Your task to perform on an android device: Go to location settings Image 0: 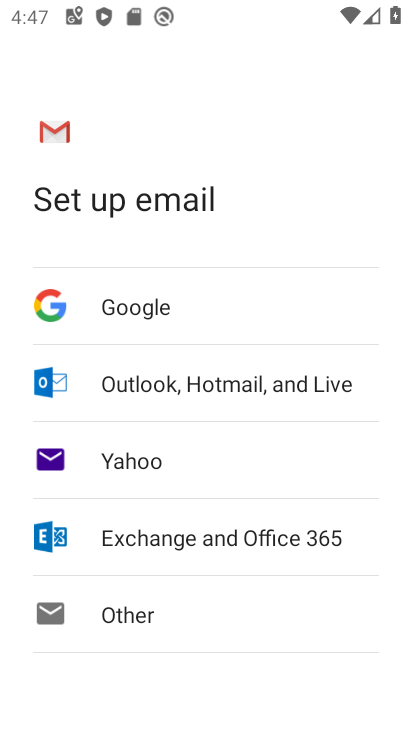
Step 0: press home button
Your task to perform on an android device: Go to location settings Image 1: 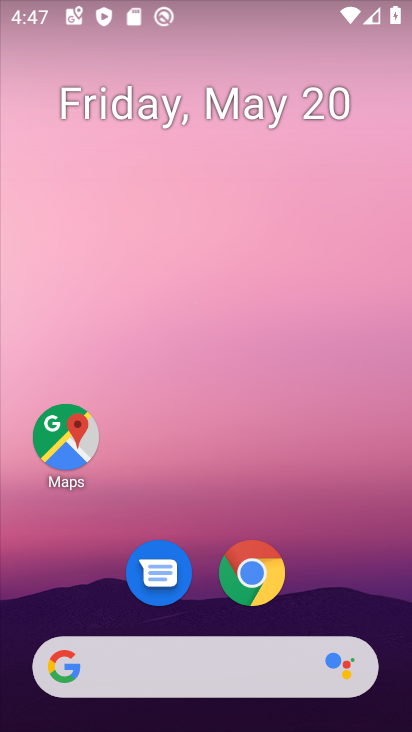
Step 1: drag from (397, 629) to (287, 53)
Your task to perform on an android device: Go to location settings Image 2: 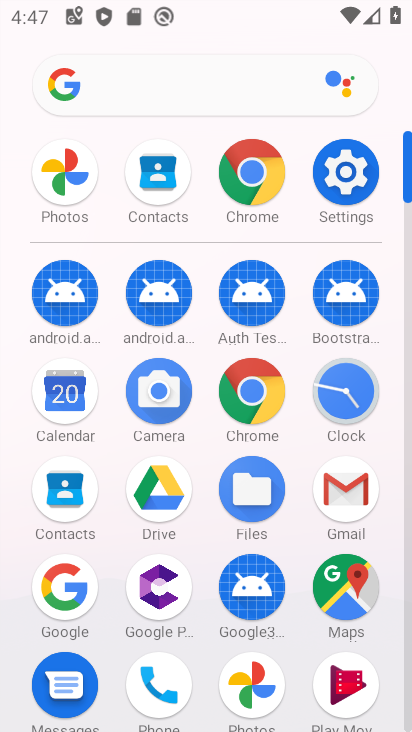
Step 2: click (409, 714)
Your task to perform on an android device: Go to location settings Image 3: 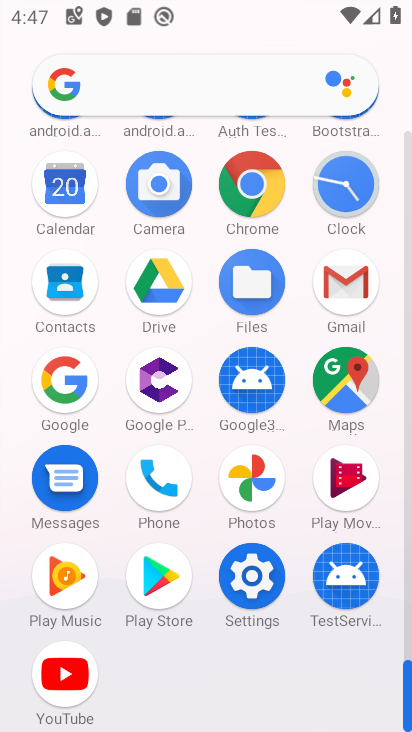
Step 3: click (256, 577)
Your task to perform on an android device: Go to location settings Image 4: 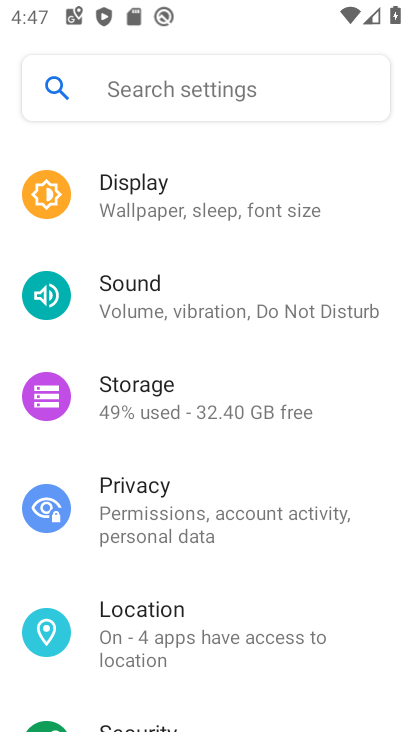
Step 4: click (127, 608)
Your task to perform on an android device: Go to location settings Image 5: 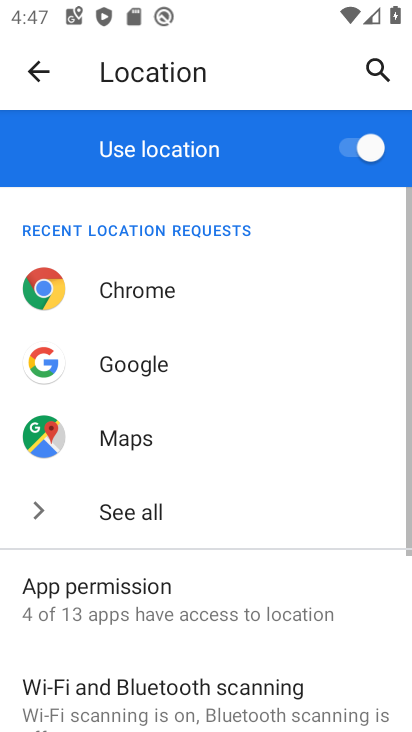
Step 5: drag from (258, 593) to (206, 241)
Your task to perform on an android device: Go to location settings Image 6: 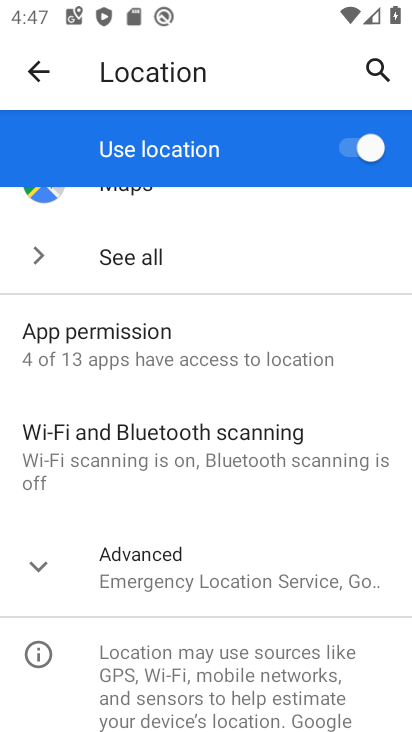
Step 6: click (37, 567)
Your task to perform on an android device: Go to location settings Image 7: 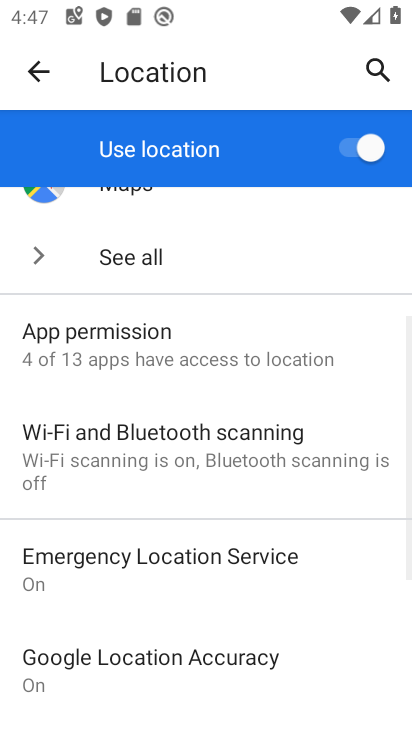
Step 7: task complete